Your task to perform on an android device: Go to Google Image 0: 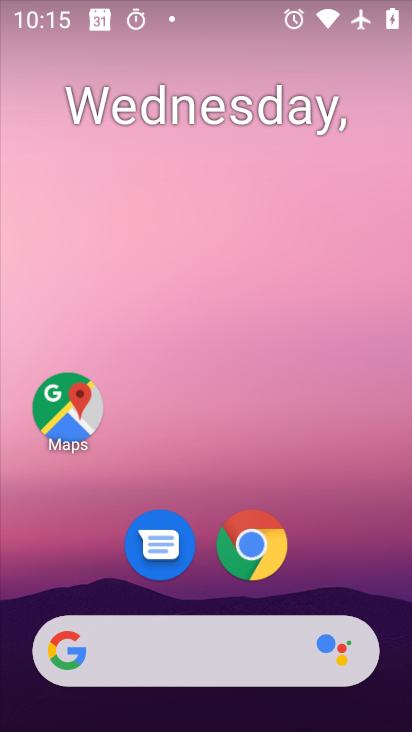
Step 0: press home button
Your task to perform on an android device: Go to Google Image 1: 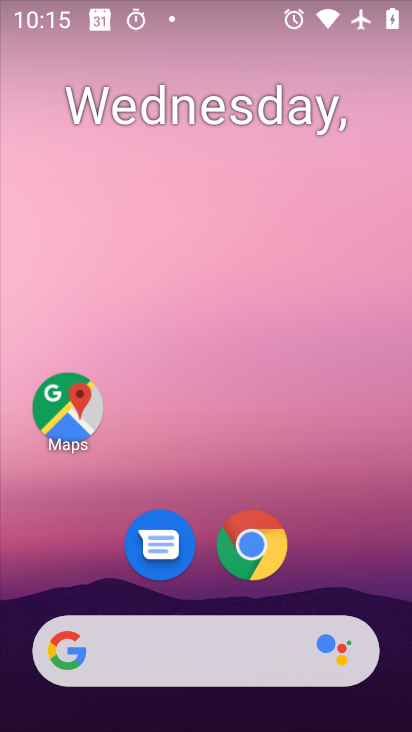
Step 1: drag from (191, 665) to (310, 195)
Your task to perform on an android device: Go to Google Image 2: 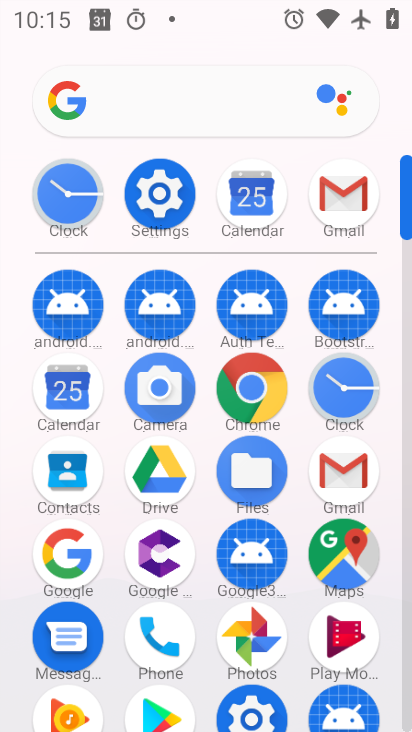
Step 2: click (76, 553)
Your task to perform on an android device: Go to Google Image 3: 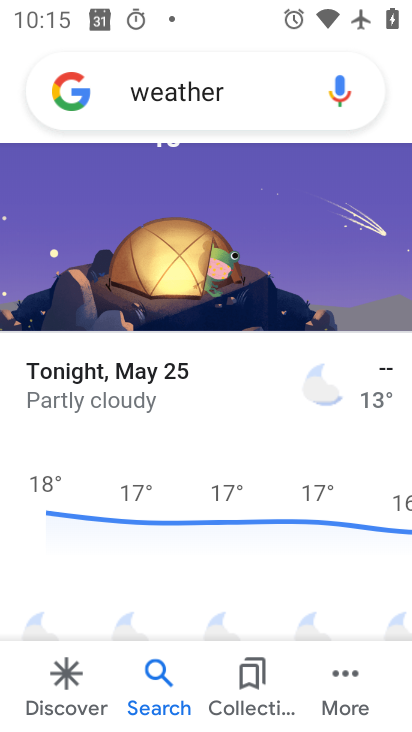
Step 3: click (54, 701)
Your task to perform on an android device: Go to Google Image 4: 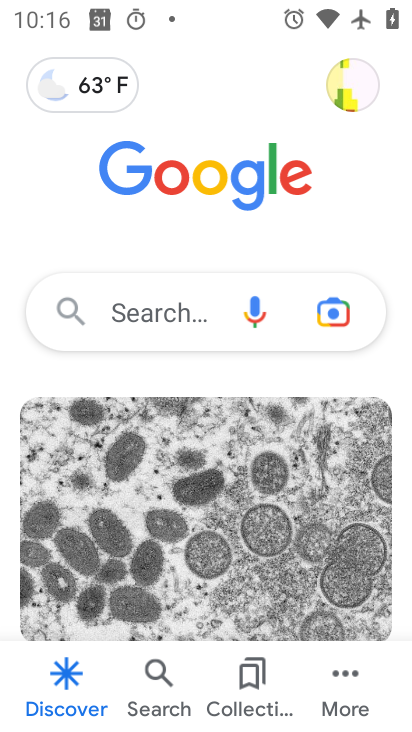
Step 4: task complete